Your task to perform on an android device: What's the weather going to be tomorrow? Image 0: 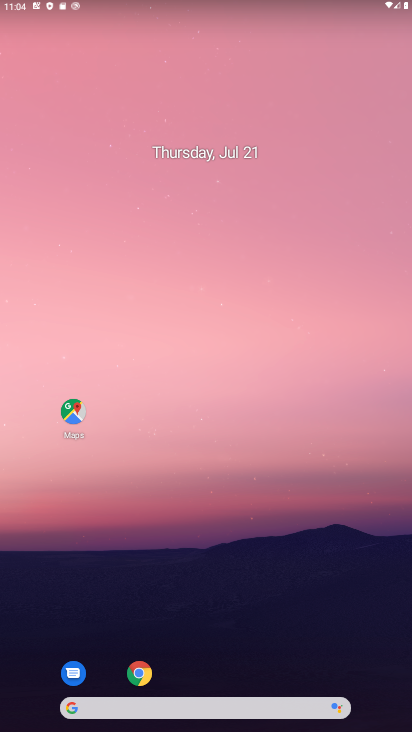
Step 0: drag from (195, 662) to (201, 145)
Your task to perform on an android device: What's the weather going to be tomorrow? Image 1: 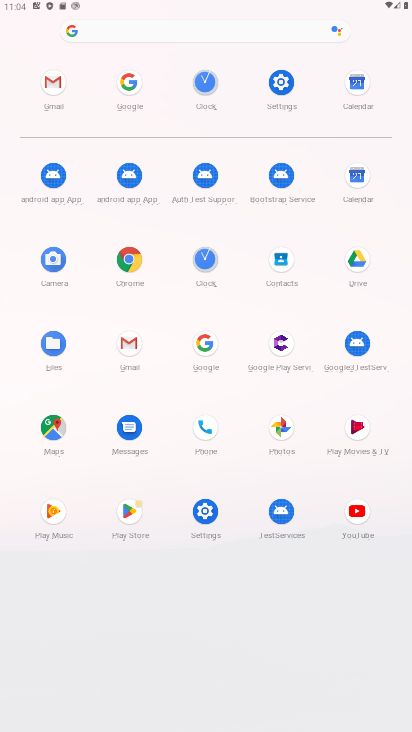
Step 1: click (201, 364)
Your task to perform on an android device: What's the weather going to be tomorrow? Image 2: 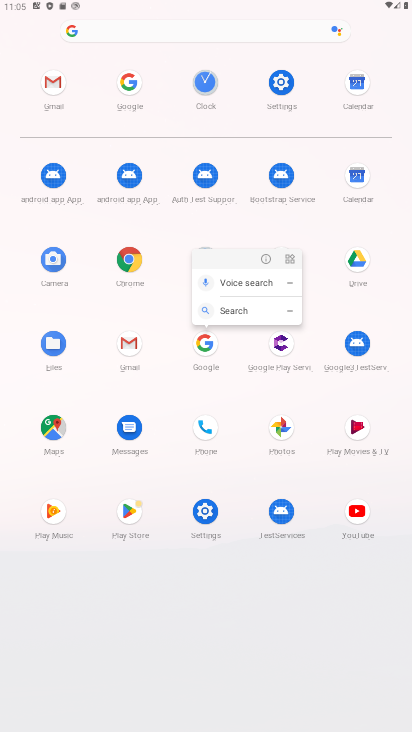
Step 2: click (197, 352)
Your task to perform on an android device: What's the weather going to be tomorrow? Image 3: 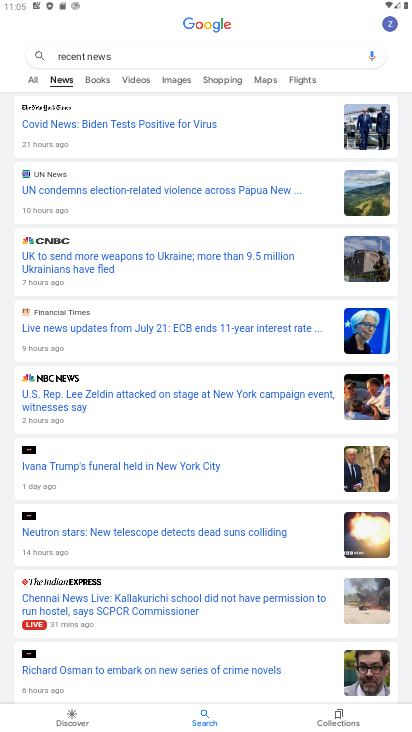
Step 3: click (140, 59)
Your task to perform on an android device: What's the weather going to be tomorrow? Image 4: 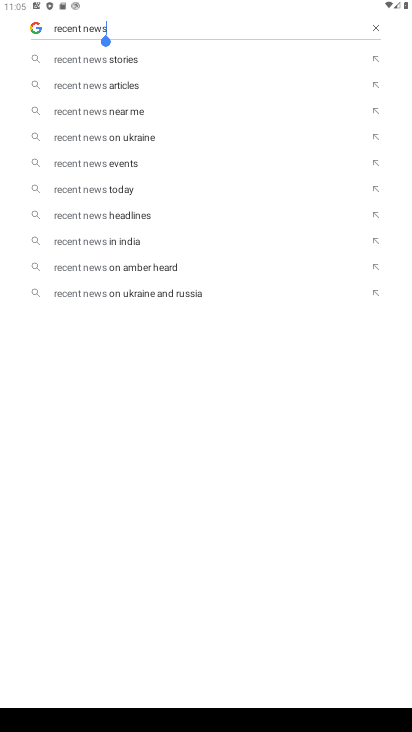
Step 4: click (376, 23)
Your task to perform on an android device: What's the weather going to be tomorrow? Image 5: 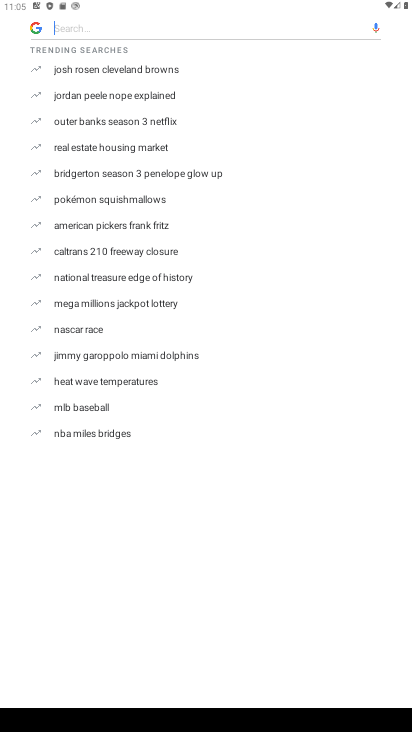
Step 5: click (95, 22)
Your task to perform on an android device: What's the weather going to be tomorrow? Image 6: 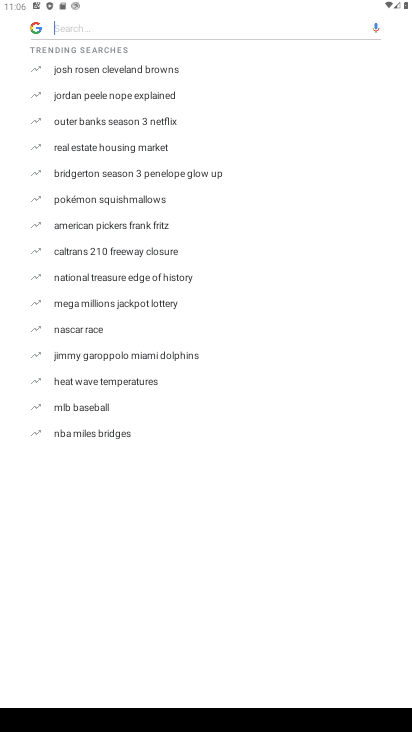
Step 6: type "weather"
Your task to perform on an android device: What's the weather going to be tomorrow? Image 7: 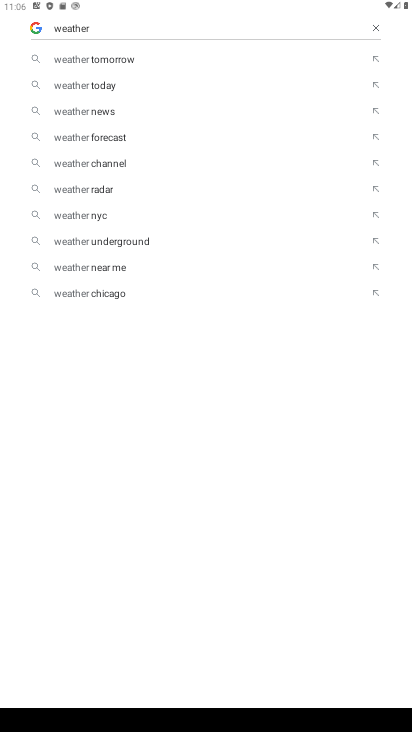
Step 7: click (110, 64)
Your task to perform on an android device: What's the weather going to be tomorrow? Image 8: 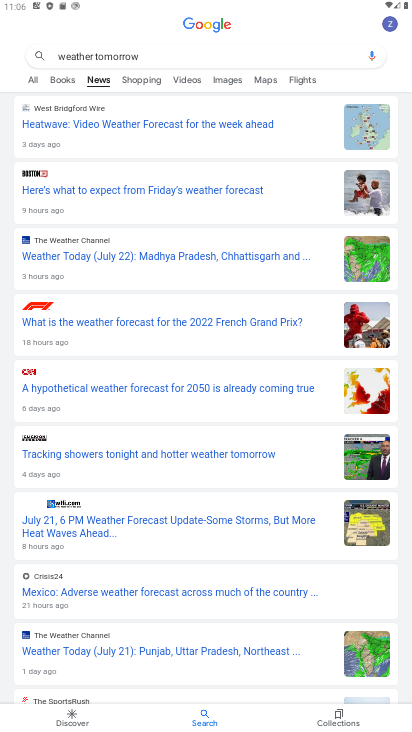
Step 8: click (31, 80)
Your task to perform on an android device: What's the weather going to be tomorrow? Image 9: 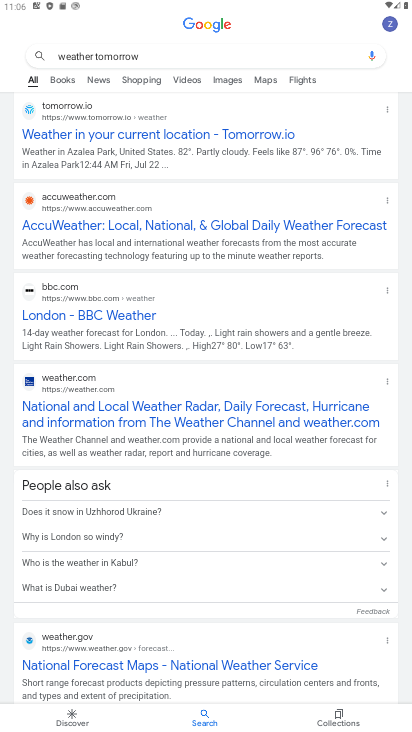
Step 9: click (251, 141)
Your task to perform on an android device: What's the weather going to be tomorrow? Image 10: 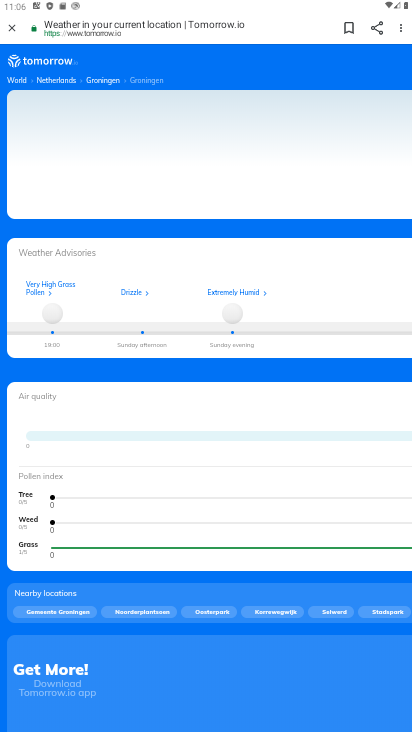
Step 10: task complete